Your task to perform on an android device: Search for lg ultragear on ebay, select the first entry, add it to the cart, then select checkout. Image 0: 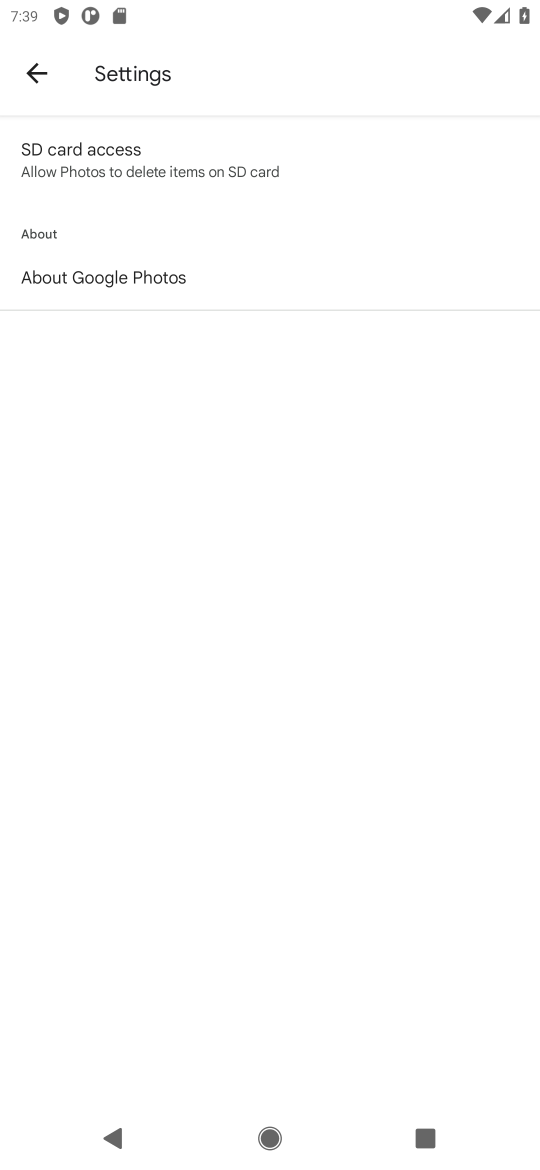
Step 0: press home button
Your task to perform on an android device: Search for lg ultragear on ebay, select the first entry, add it to the cart, then select checkout. Image 1: 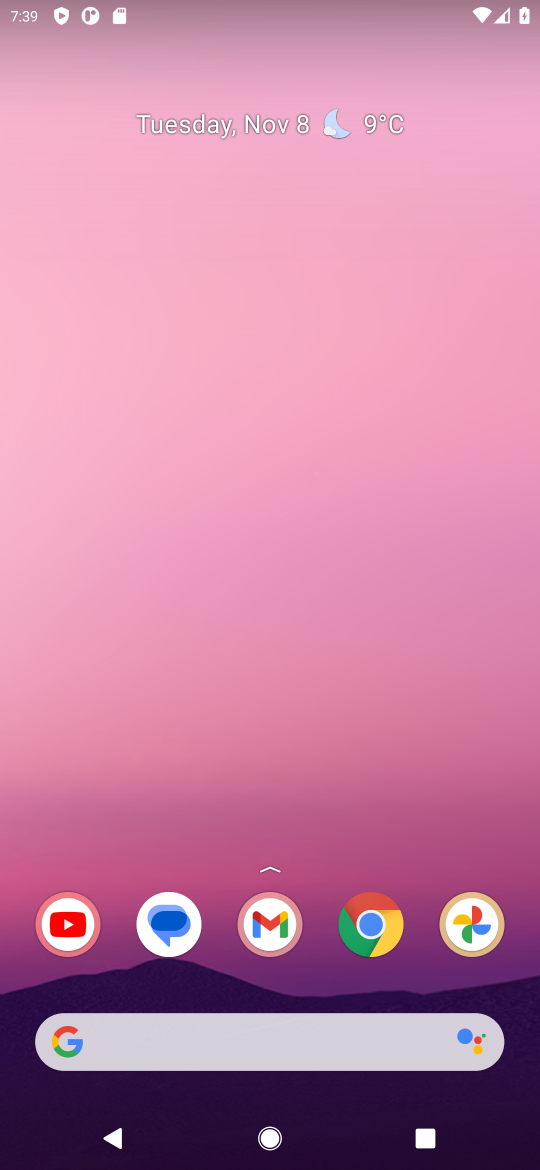
Step 1: click (196, 1049)
Your task to perform on an android device: Search for lg ultragear on ebay, select the first entry, add it to the cart, then select checkout. Image 2: 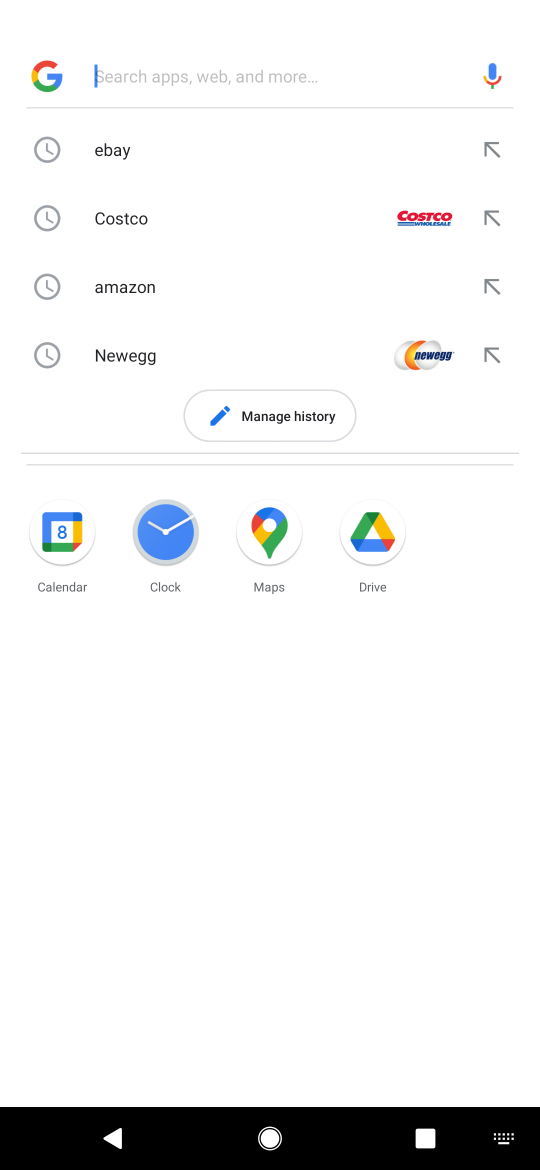
Step 2: click (123, 157)
Your task to perform on an android device: Search for lg ultragear on ebay, select the first entry, add it to the cart, then select checkout. Image 3: 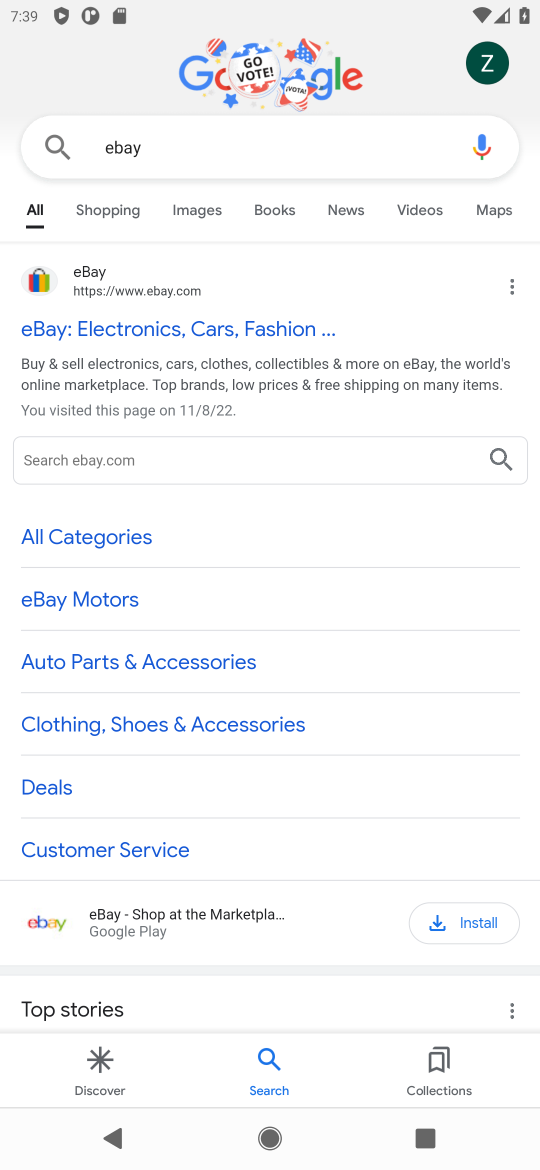
Step 3: click (79, 282)
Your task to perform on an android device: Search for lg ultragear on ebay, select the first entry, add it to the cart, then select checkout. Image 4: 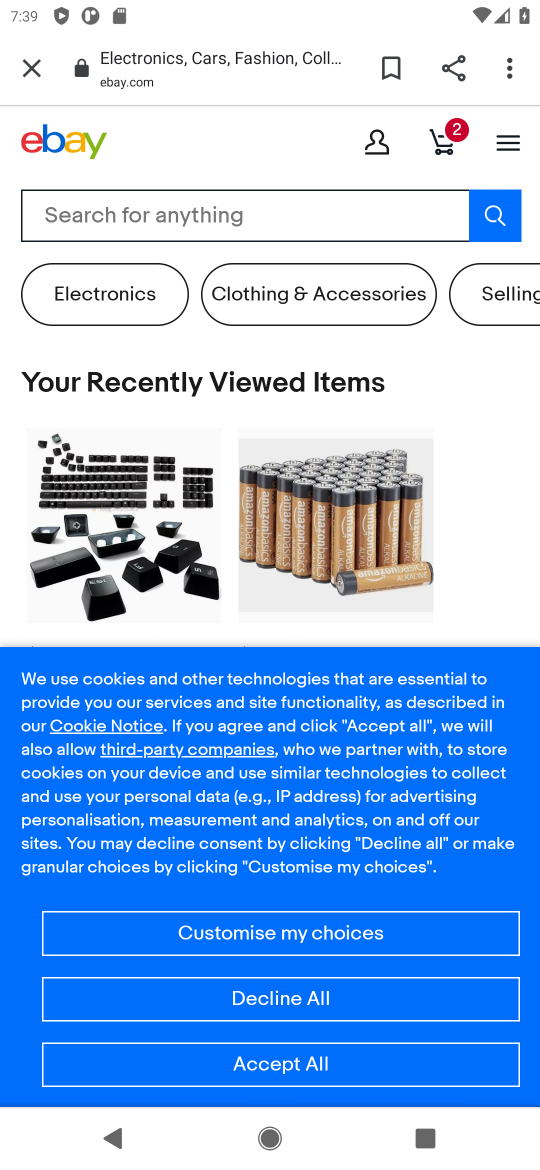
Step 4: click (189, 212)
Your task to perform on an android device: Search for lg ultragear on ebay, select the first entry, add it to the cart, then select checkout. Image 5: 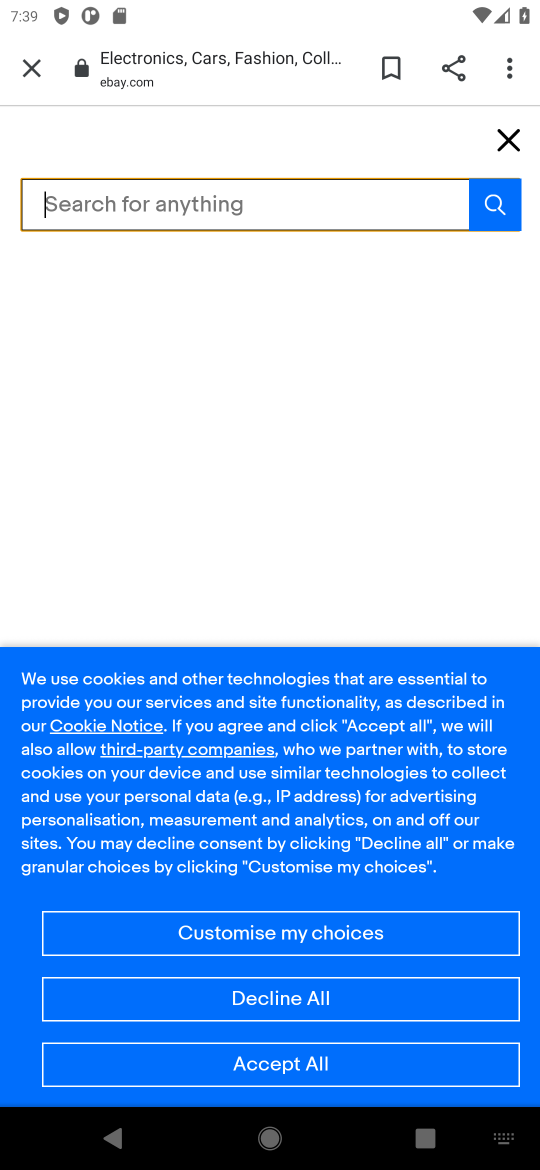
Step 5: click (256, 1002)
Your task to perform on an android device: Search for lg ultragear on ebay, select the first entry, add it to the cart, then select checkout. Image 6: 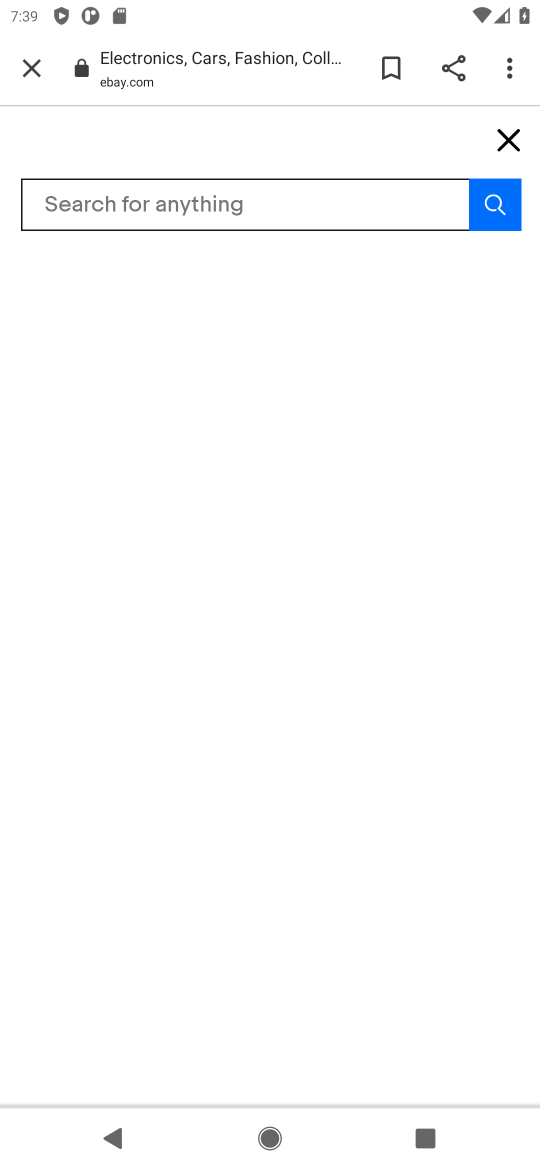
Step 6: type "lg ultragear"
Your task to perform on an android device: Search for lg ultragear on ebay, select the first entry, add it to the cart, then select checkout. Image 7: 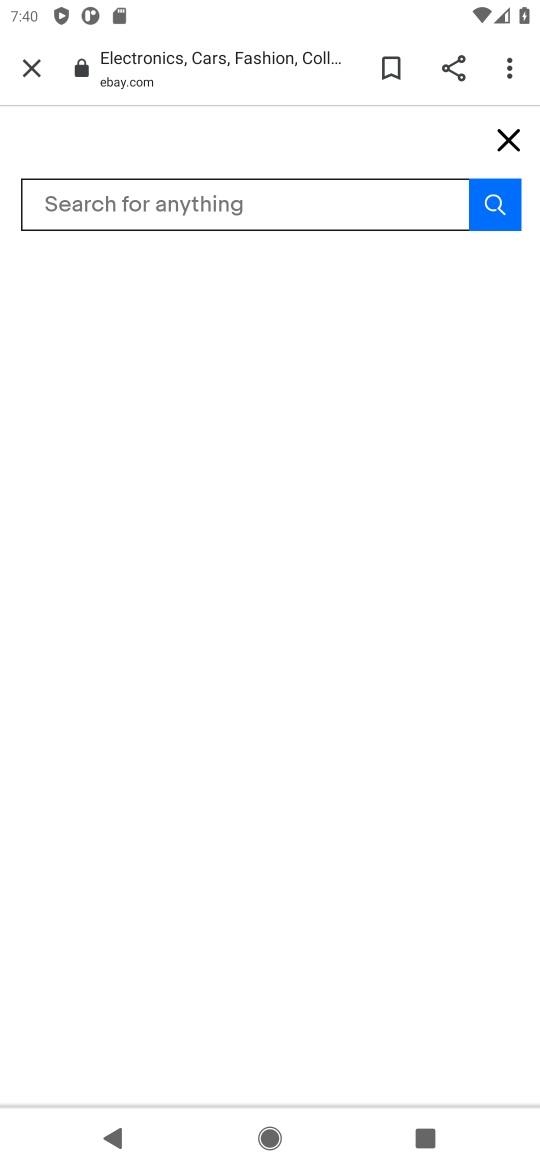
Step 7: type "lg ultragear"
Your task to perform on an android device: Search for lg ultragear on ebay, select the first entry, add it to the cart, then select checkout. Image 8: 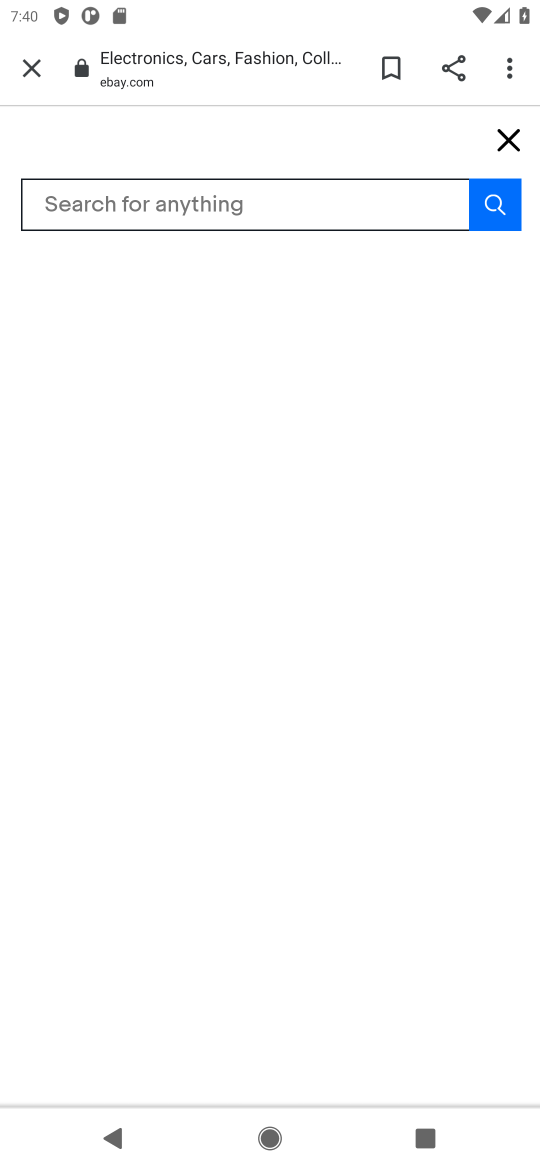
Step 8: click (177, 211)
Your task to perform on an android device: Search for lg ultragear on ebay, select the first entry, add it to the cart, then select checkout. Image 9: 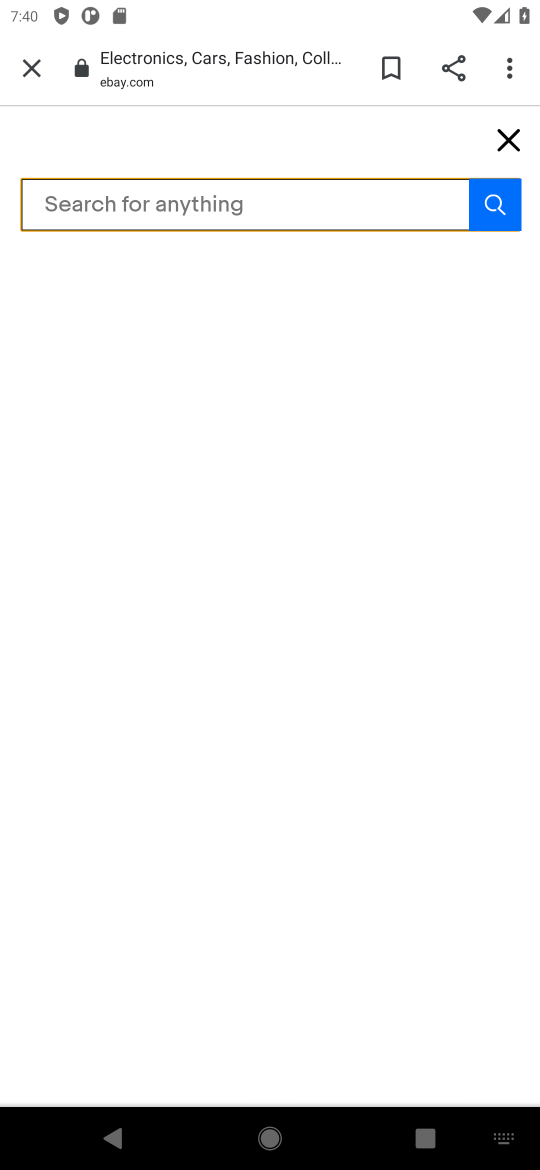
Step 9: click (177, 211)
Your task to perform on an android device: Search for lg ultragear on ebay, select the first entry, add it to the cart, then select checkout. Image 10: 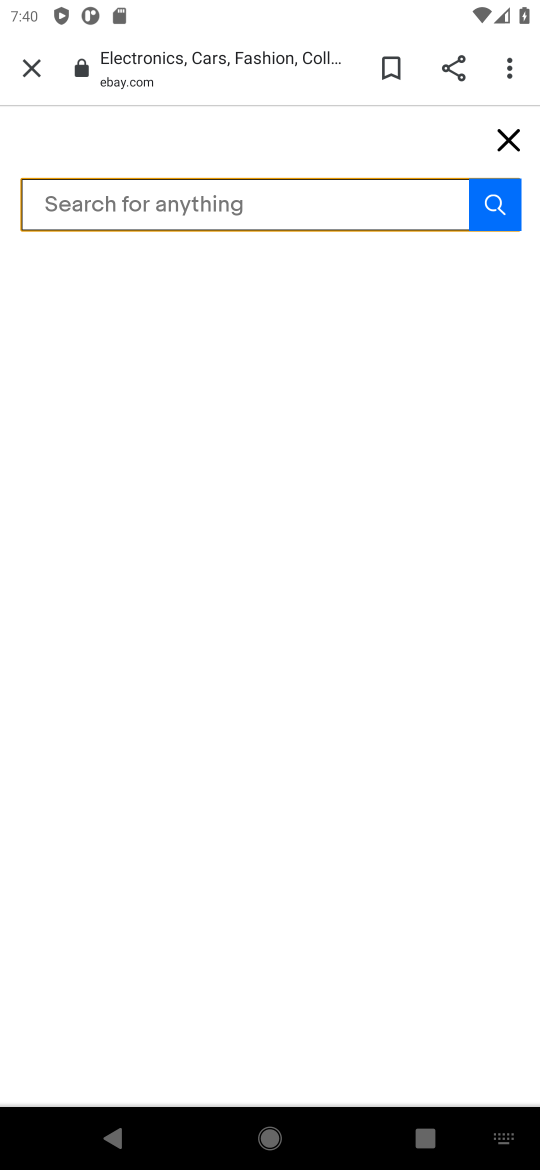
Step 10: type "lg ultragear"
Your task to perform on an android device: Search for lg ultragear on ebay, select the first entry, add it to the cart, then select checkout. Image 11: 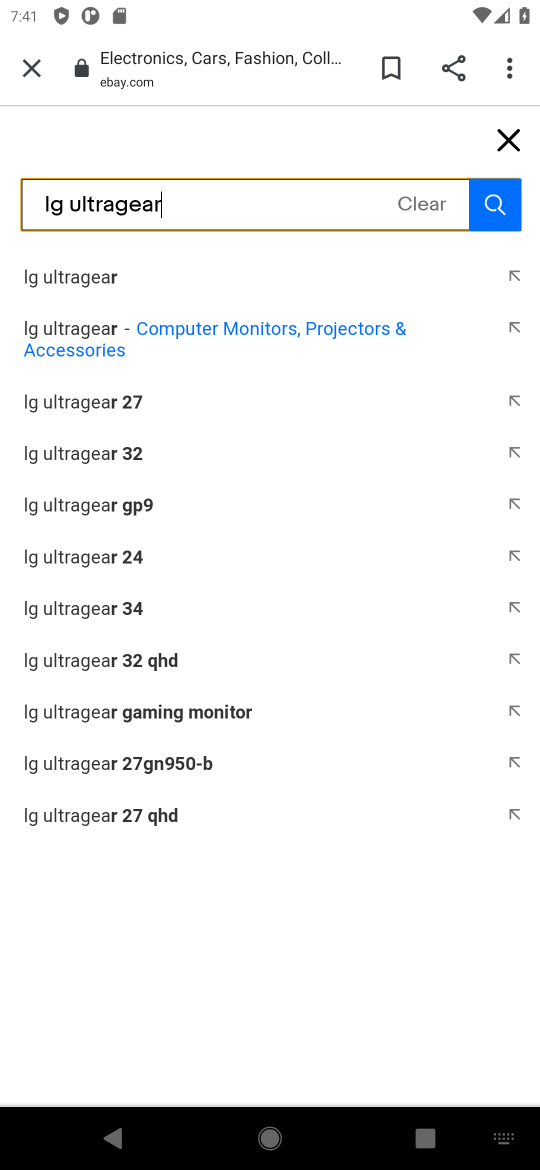
Step 11: click (93, 280)
Your task to perform on an android device: Search for lg ultragear on ebay, select the first entry, add it to the cart, then select checkout. Image 12: 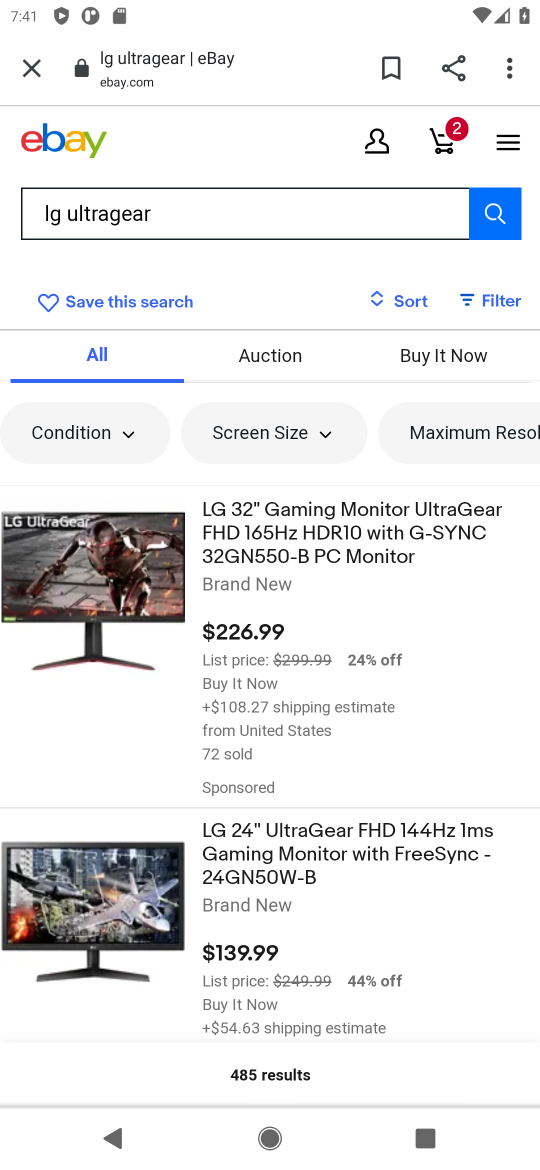
Step 12: click (220, 579)
Your task to perform on an android device: Search for lg ultragear on ebay, select the first entry, add it to the cart, then select checkout. Image 13: 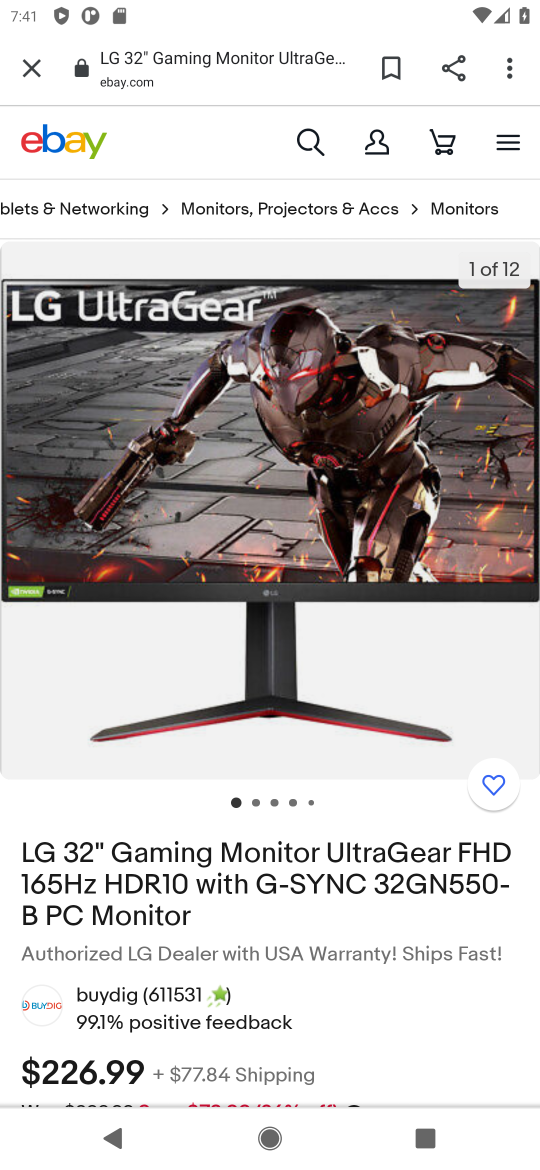
Step 13: drag from (285, 773) to (310, 591)
Your task to perform on an android device: Search for lg ultragear on ebay, select the first entry, add it to the cart, then select checkout. Image 14: 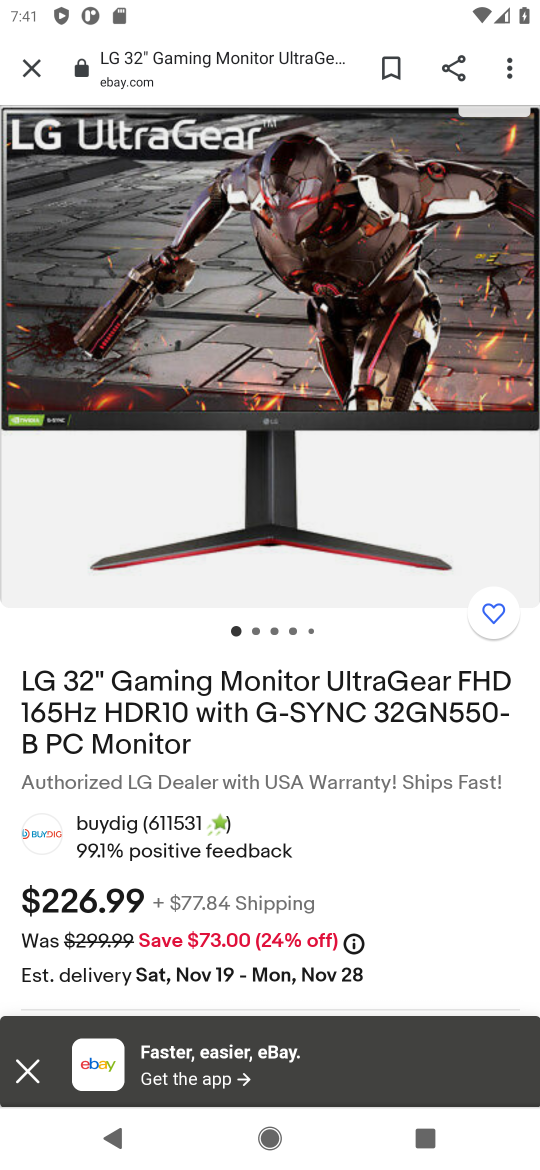
Step 14: drag from (379, 822) to (413, 441)
Your task to perform on an android device: Search for lg ultragear on ebay, select the first entry, add it to the cart, then select checkout. Image 15: 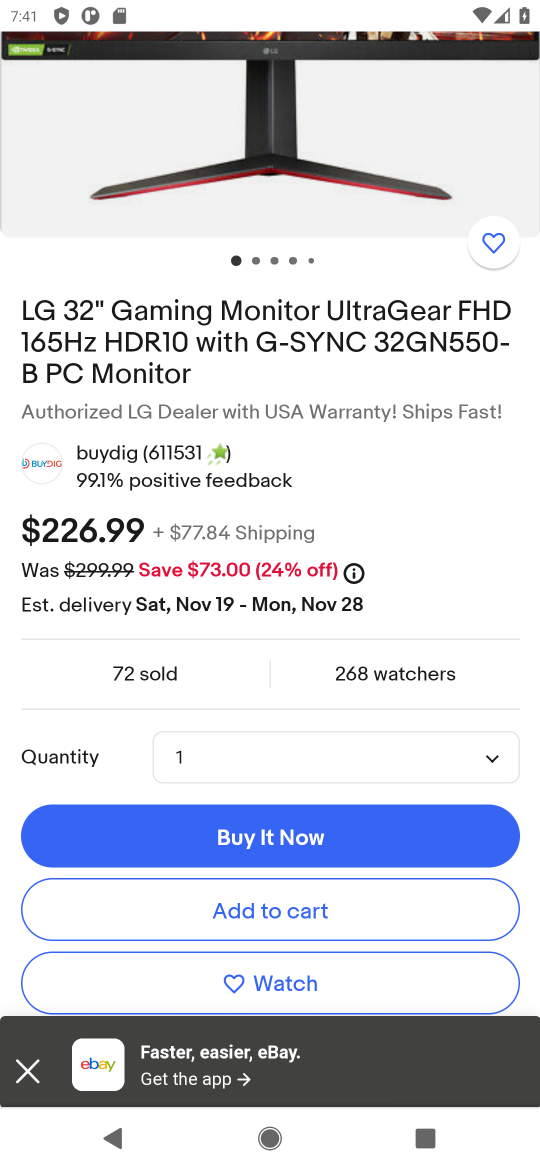
Step 15: click (263, 896)
Your task to perform on an android device: Search for lg ultragear on ebay, select the first entry, add it to the cart, then select checkout. Image 16: 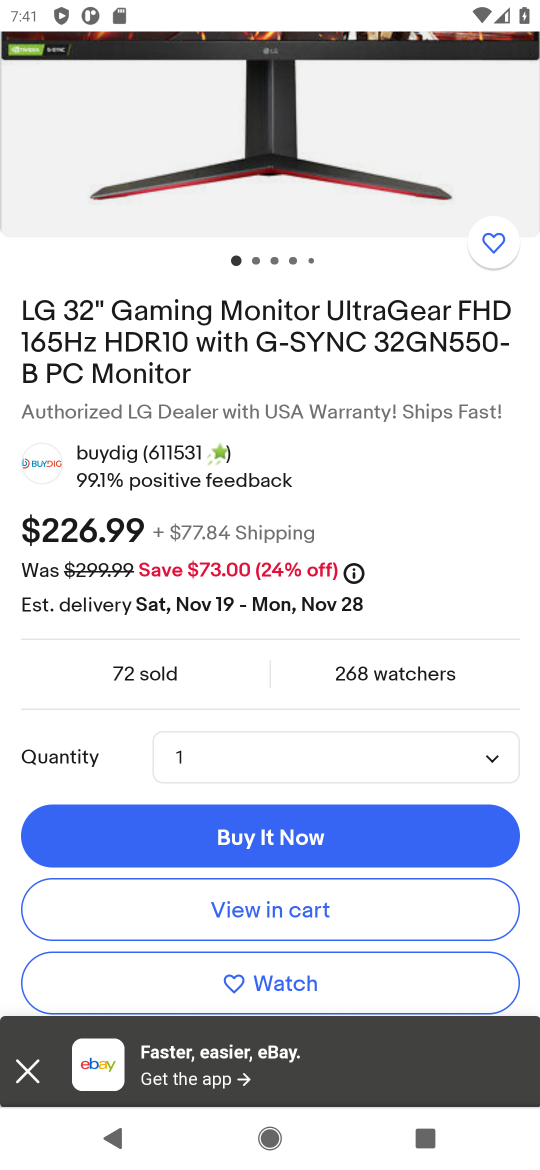
Step 16: click (247, 919)
Your task to perform on an android device: Search for lg ultragear on ebay, select the first entry, add it to the cart, then select checkout. Image 17: 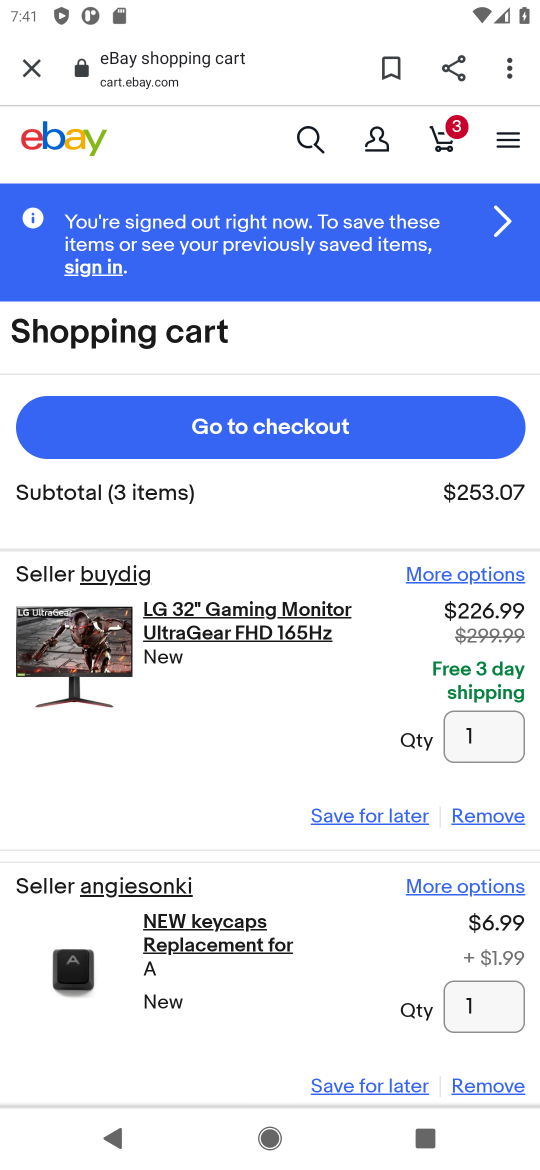
Step 17: click (268, 414)
Your task to perform on an android device: Search for lg ultragear on ebay, select the first entry, add it to the cart, then select checkout. Image 18: 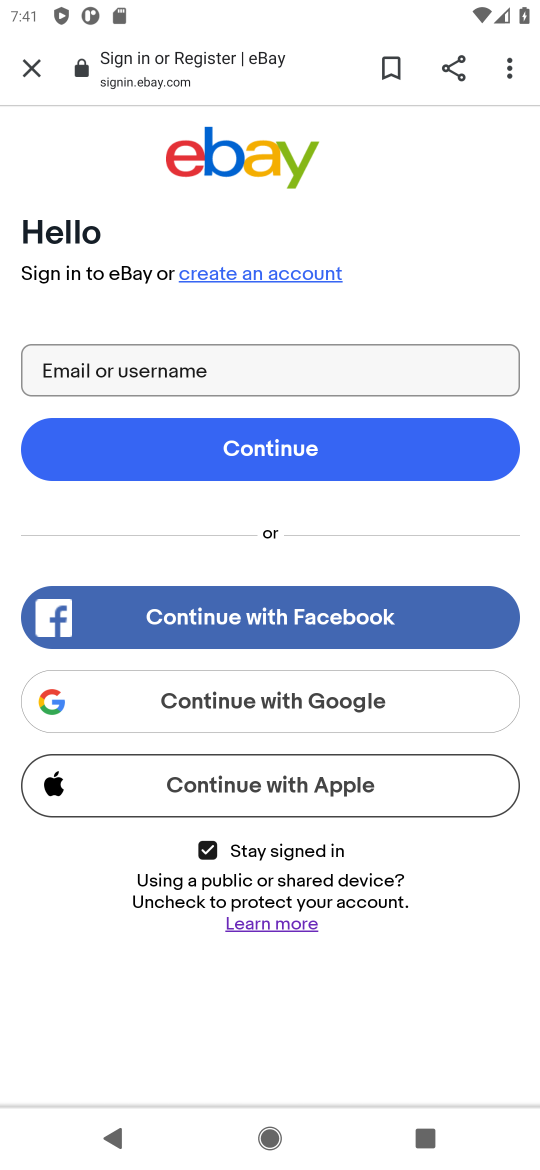
Step 18: task complete